Your task to perform on an android device: Open settings on Google Maps Image 0: 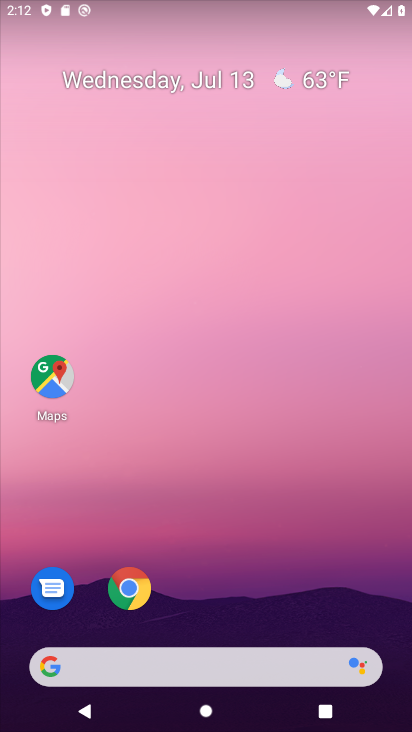
Step 0: click (36, 370)
Your task to perform on an android device: Open settings on Google Maps Image 1: 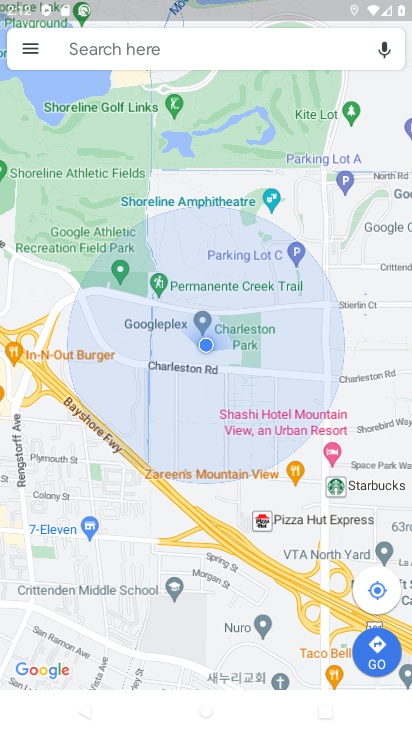
Step 1: drag from (36, 370) to (0, 141)
Your task to perform on an android device: Open settings on Google Maps Image 2: 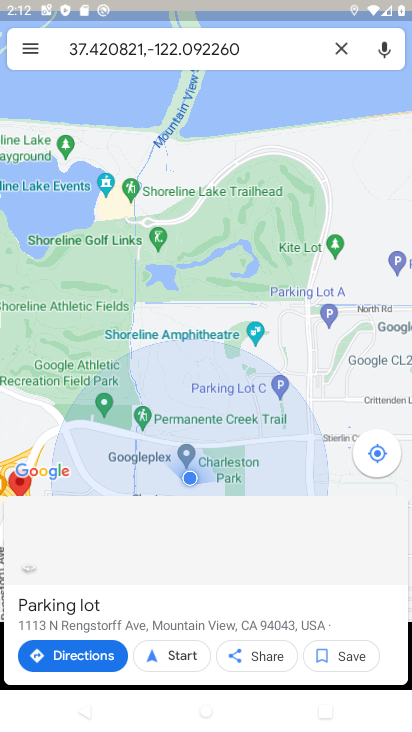
Step 2: click (27, 51)
Your task to perform on an android device: Open settings on Google Maps Image 3: 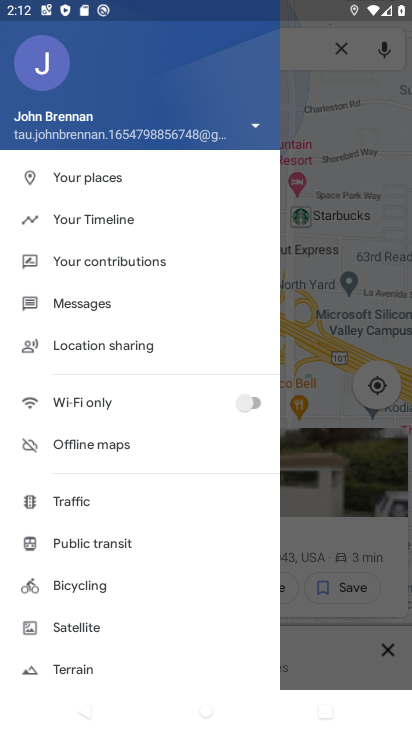
Step 3: drag from (107, 615) to (77, 169)
Your task to perform on an android device: Open settings on Google Maps Image 4: 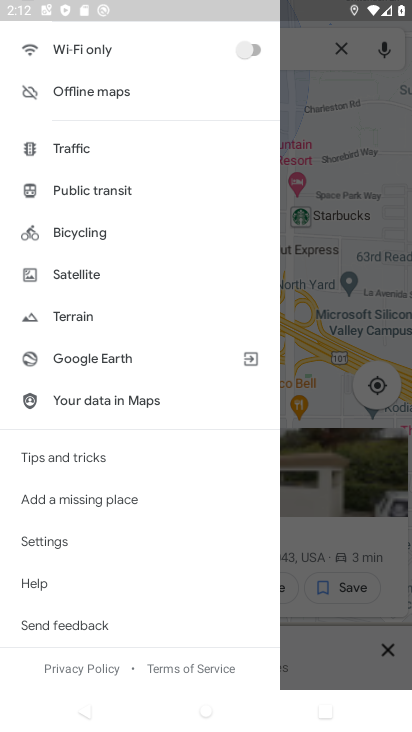
Step 4: click (56, 543)
Your task to perform on an android device: Open settings on Google Maps Image 5: 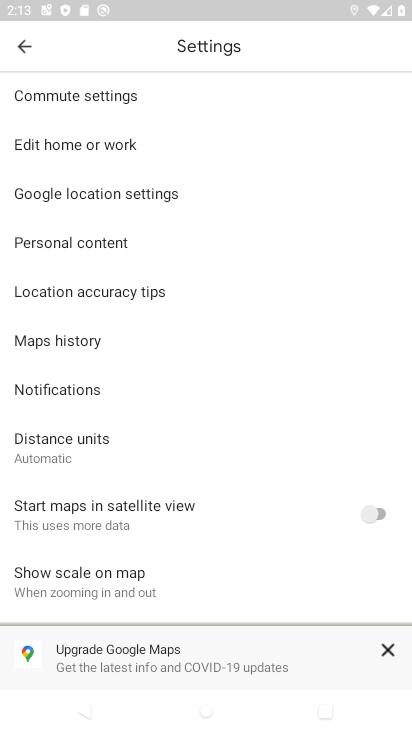
Step 5: task complete